Your task to perform on an android device: all mails in gmail Image 0: 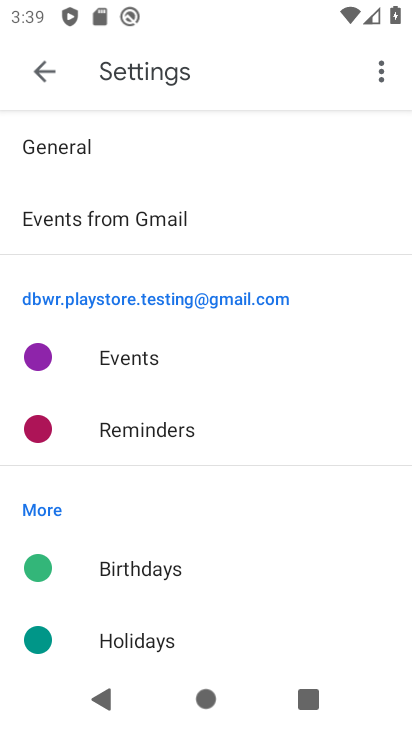
Step 0: press back button
Your task to perform on an android device: all mails in gmail Image 1: 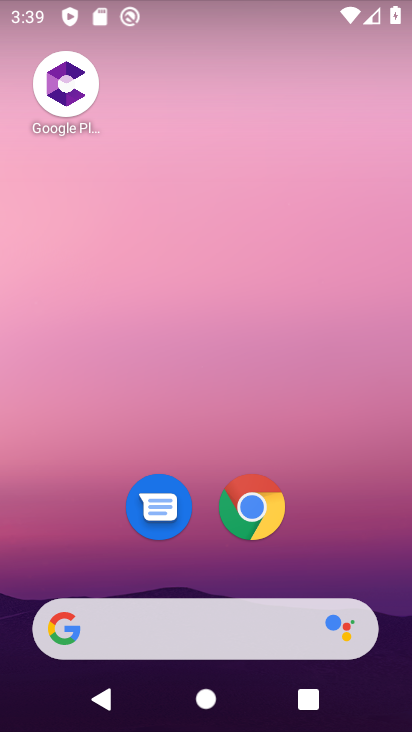
Step 1: drag from (306, 543) to (283, 137)
Your task to perform on an android device: all mails in gmail Image 2: 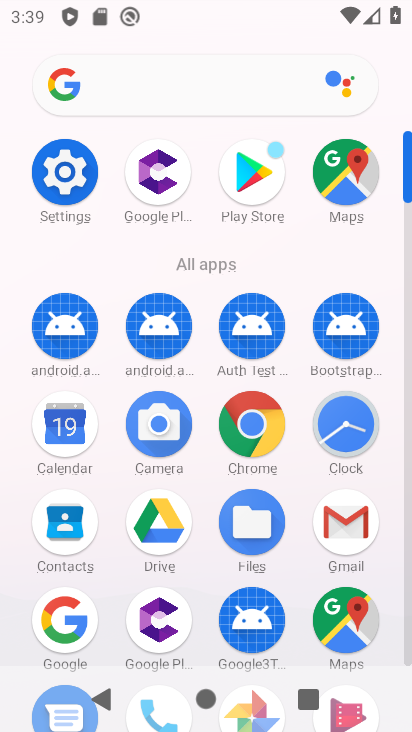
Step 2: click (328, 507)
Your task to perform on an android device: all mails in gmail Image 3: 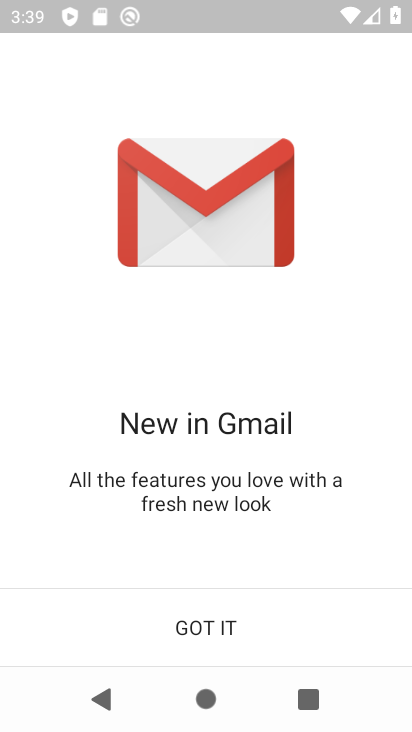
Step 3: click (218, 616)
Your task to perform on an android device: all mails in gmail Image 4: 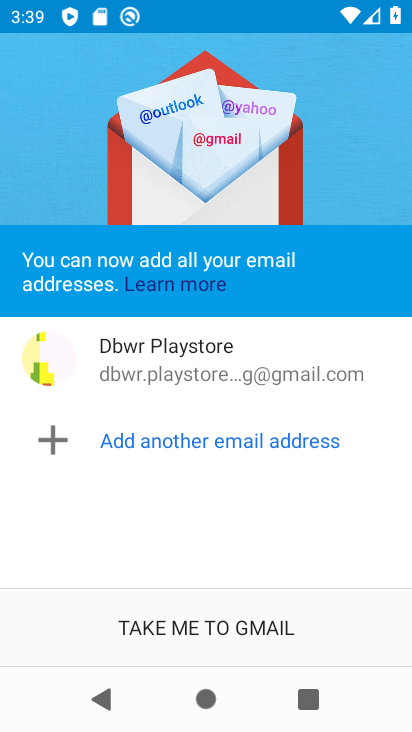
Step 4: click (213, 614)
Your task to perform on an android device: all mails in gmail Image 5: 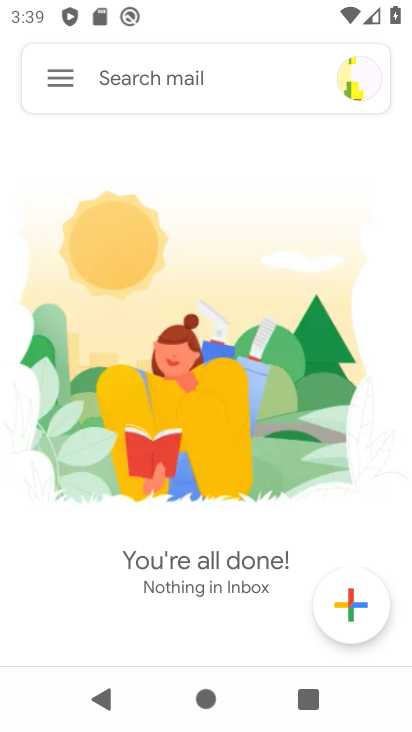
Step 5: click (79, 78)
Your task to perform on an android device: all mails in gmail Image 6: 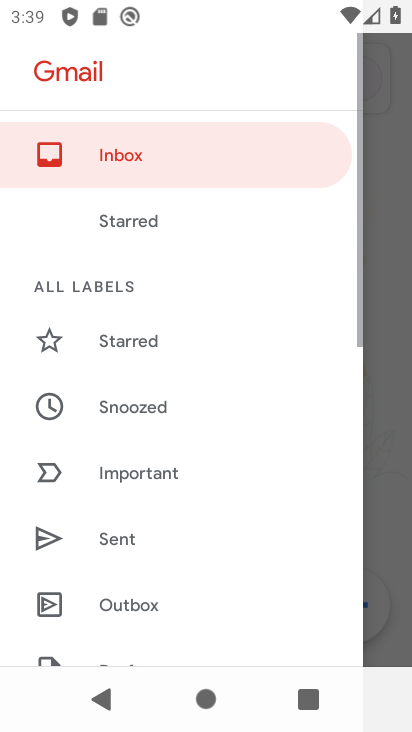
Step 6: drag from (167, 583) to (166, 335)
Your task to perform on an android device: all mails in gmail Image 7: 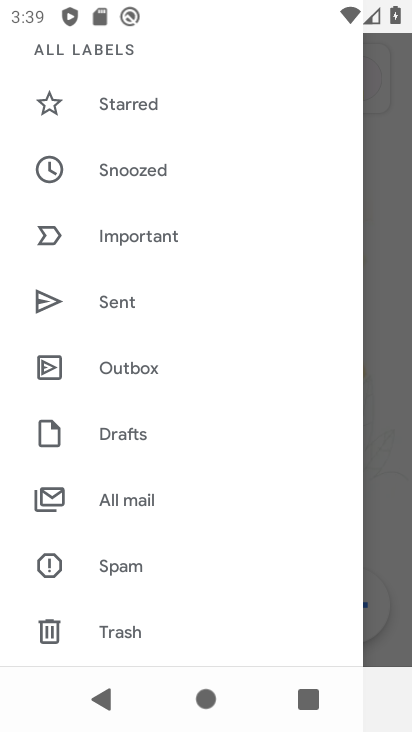
Step 7: click (147, 498)
Your task to perform on an android device: all mails in gmail Image 8: 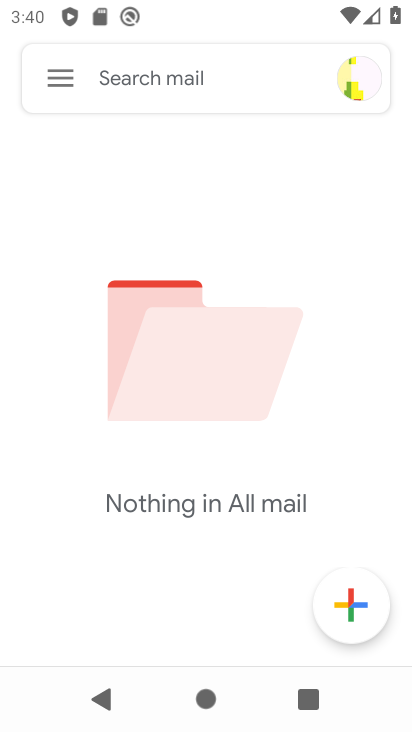
Step 8: task complete